Your task to perform on an android device: read, delete, or share a saved page in the chrome app Image 0: 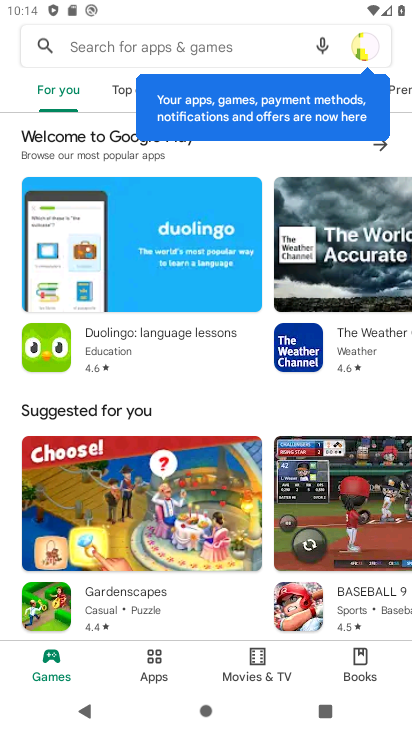
Step 0: press home button
Your task to perform on an android device: read, delete, or share a saved page in the chrome app Image 1: 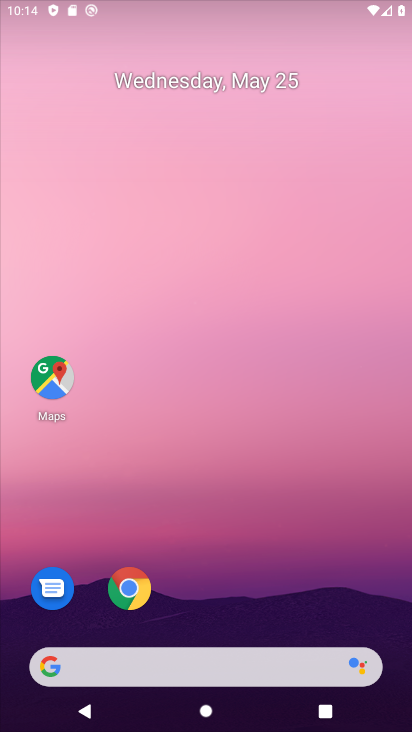
Step 1: drag from (300, 542) to (302, 169)
Your task to perform on an android device: read, delete, or share a saved page in the chrome app Image 2: 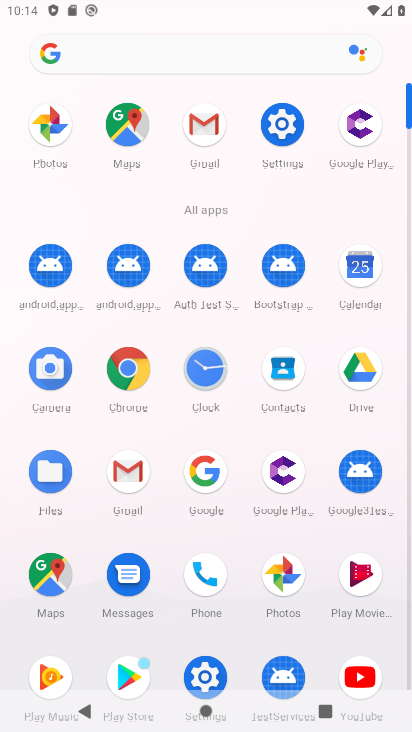
Step 2: click (118, 374)
Your task to perform on an android device: read, delete, or share a saved page in the chrome app Image 3: 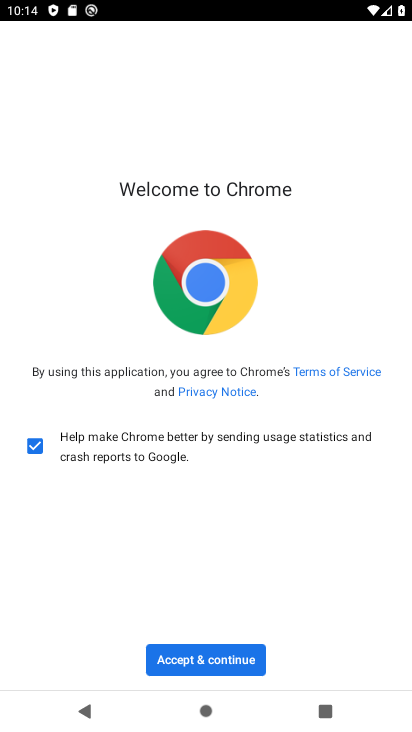
Step 3: click (218, 652)
Your task to perform on an android device: read, delete, or share a saved page in the chrome app Image 4: 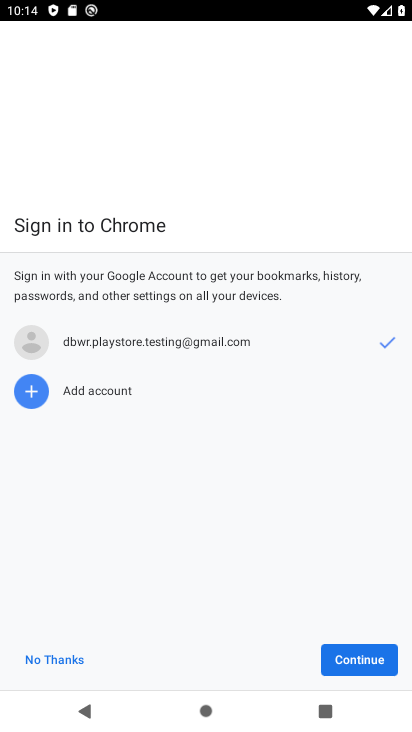
Step 4: click (375, 675)
Your task to perform on an android device: read, delete, or share a saved page in the chrome app Image 5: 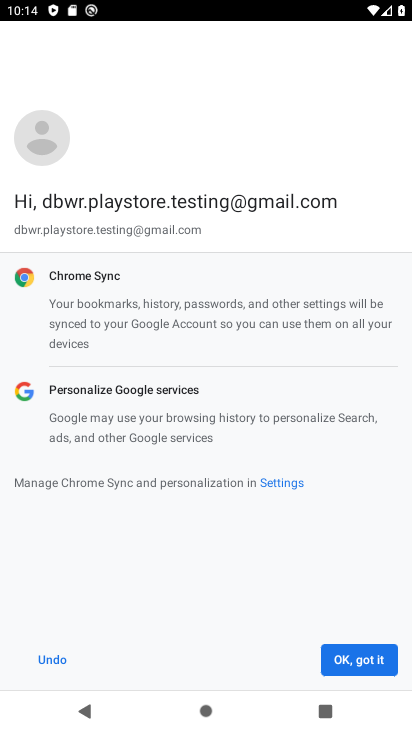
Step 5: click (373, 663)
Your task to perform on an android device: read, delete, or share a saved page in the chrome app Image 6: 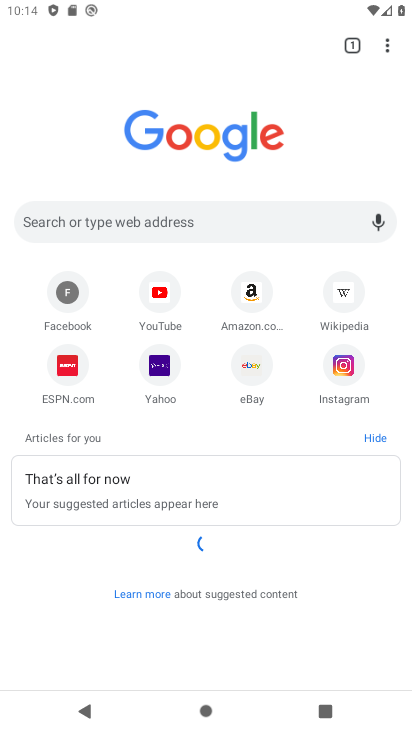
Step 6: task complete